Your task to perform on an android device: uninstall "Pinterest" Image 0: 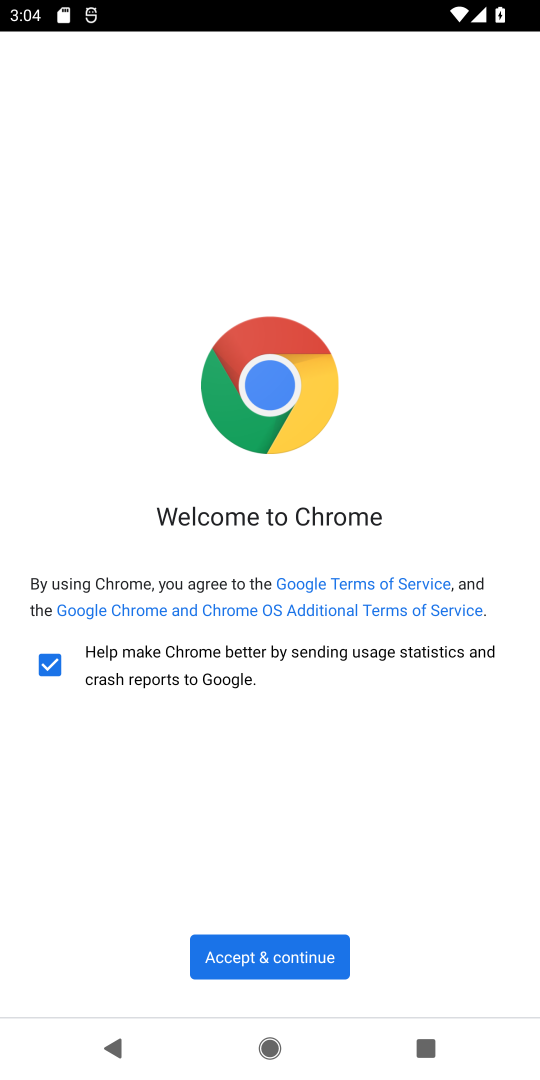
Step 0: press home button
Your task to perform on an android device: uninstall "Pinterest" Image 1: 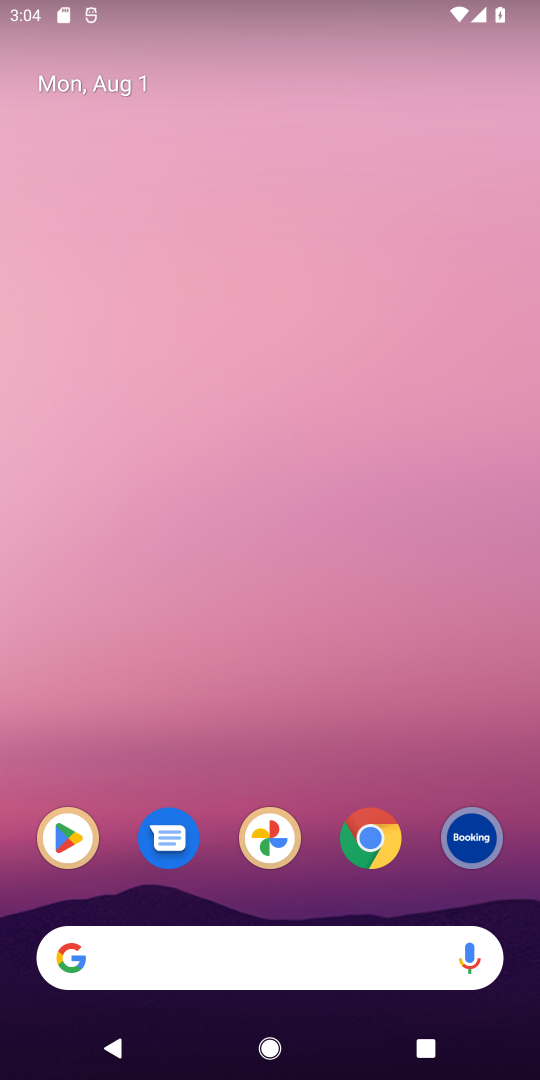
Step 1: click (60, 832)
Your task to perform on an android device: uninstall "Pinterest" Image 2: 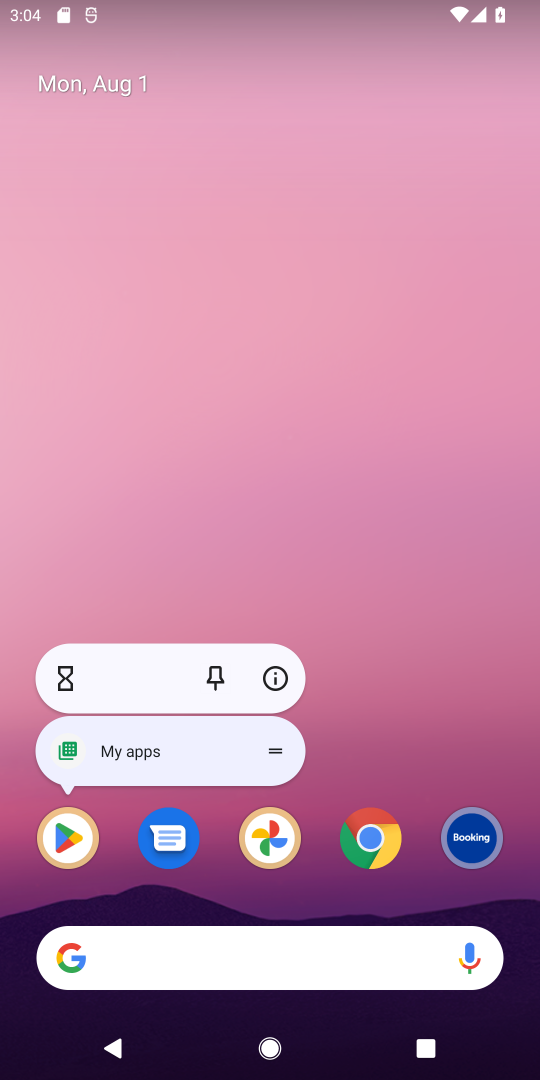
Step 2: click (56, 840)
Your task to perform on an android device: uninstall "Pinterest" Image 3: 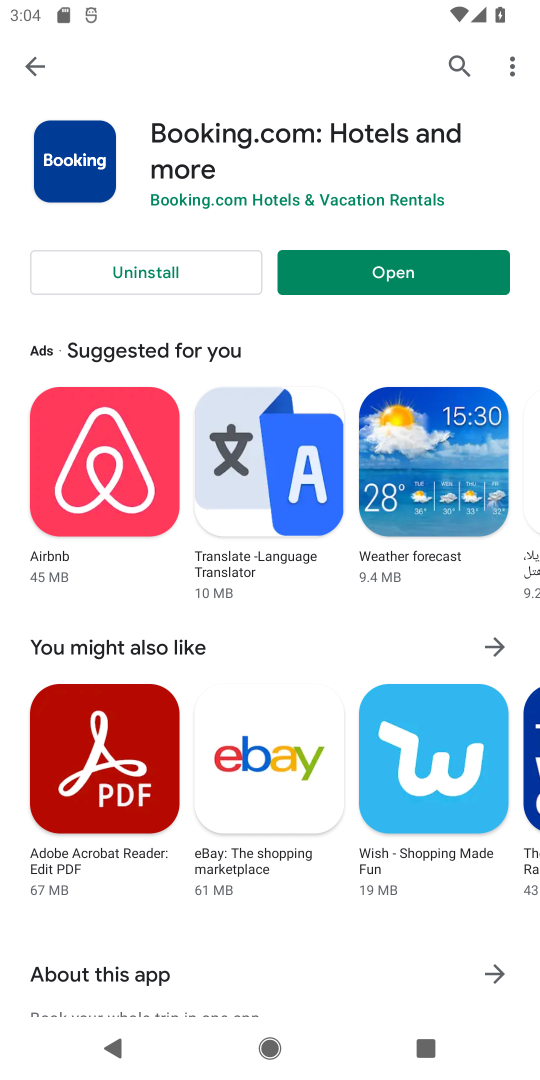
Step 3: click (455, 71)
Your task to perform on an android device: uninstall "Pinterest" Image 4: 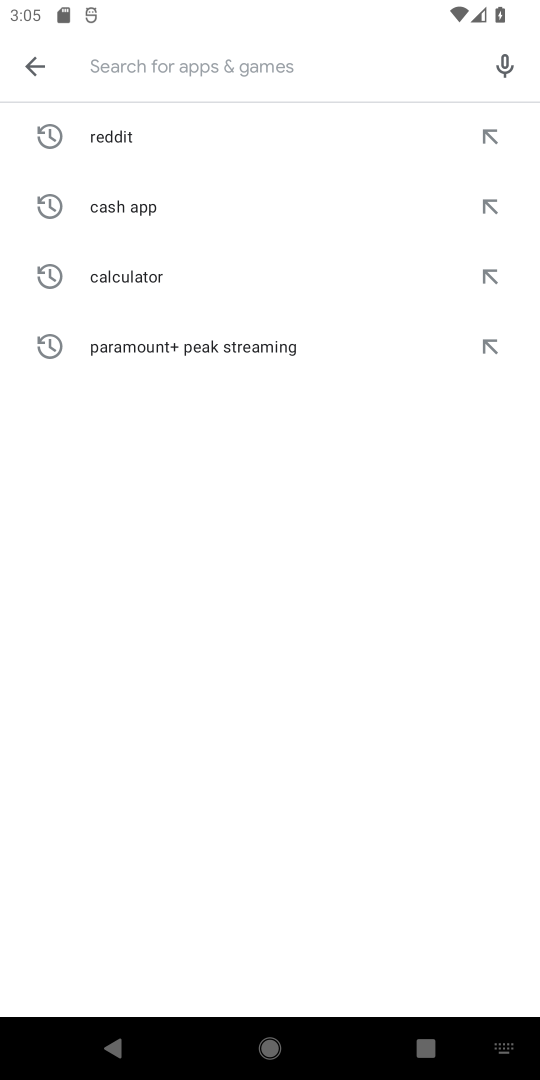
Step 4: type "Pinterest"
Your task to perform on an android device: uninstall "Pinterest" Image 5: 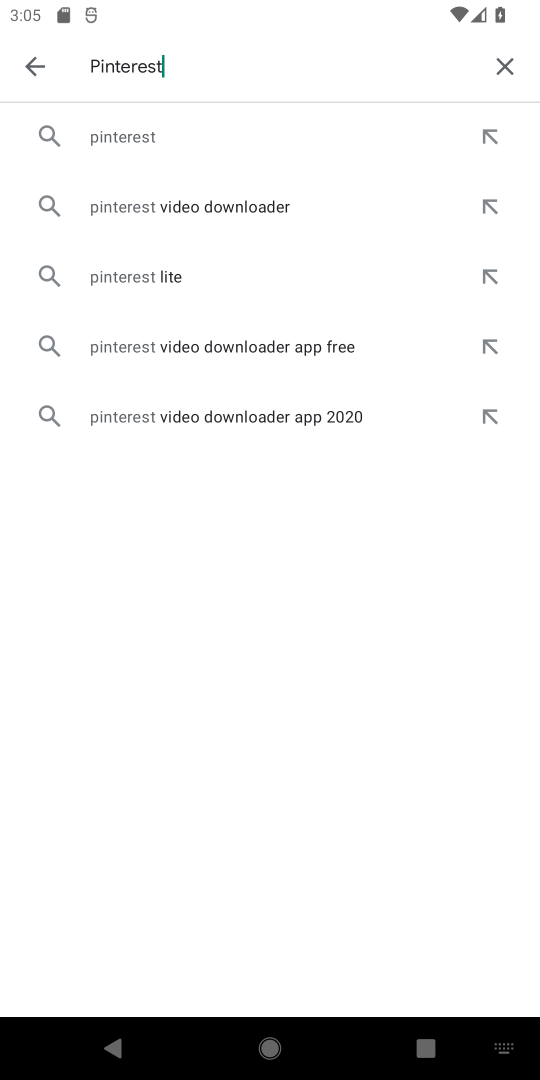
Step 5: click (111, 115)
Your task to perform on an android device: uninstall "Pinterest" Image 6: 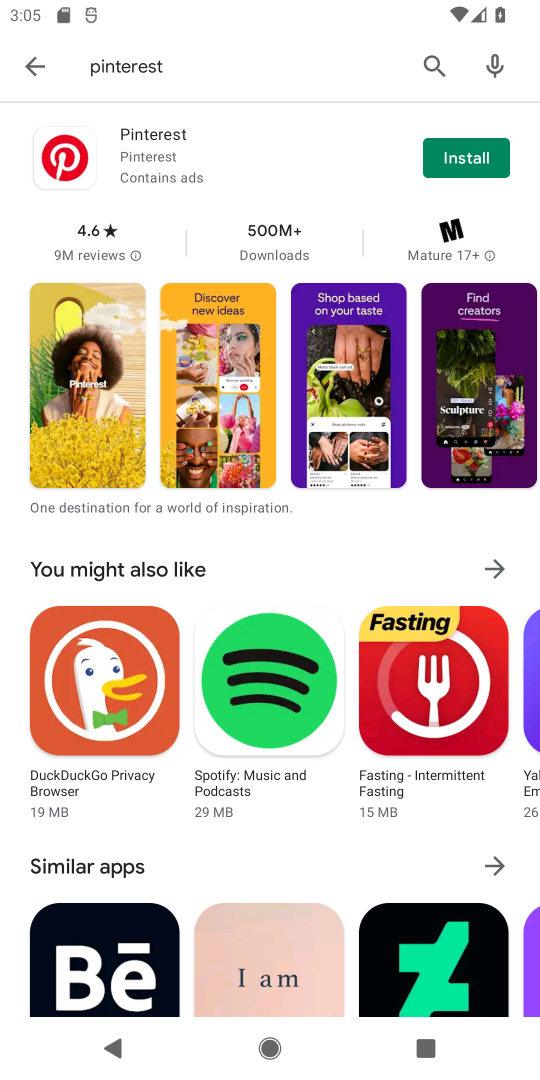
Step 6: task complete